Your task to perform on an android device: Go to Android settings Image 0: 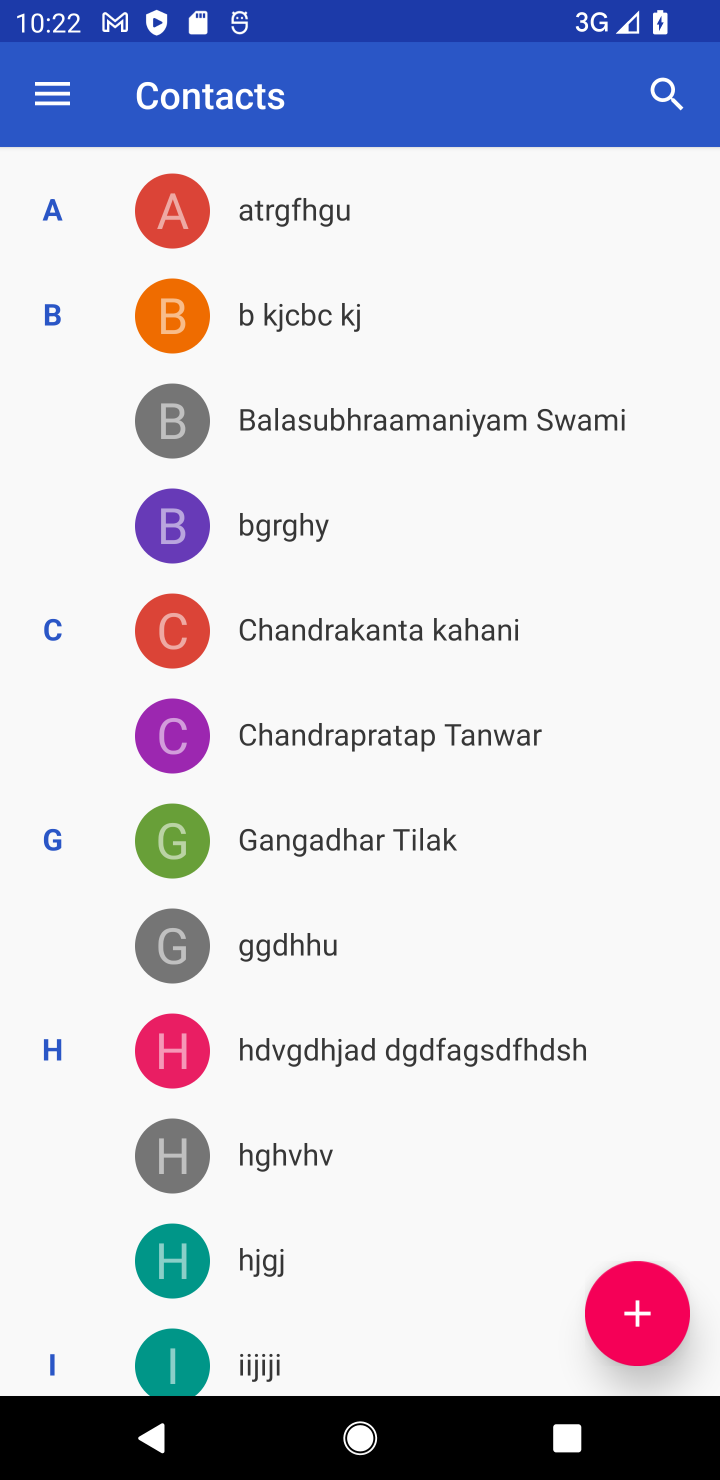
Step 0: press home button
Your task to perform on an android device: Go to Android settings Image 1: 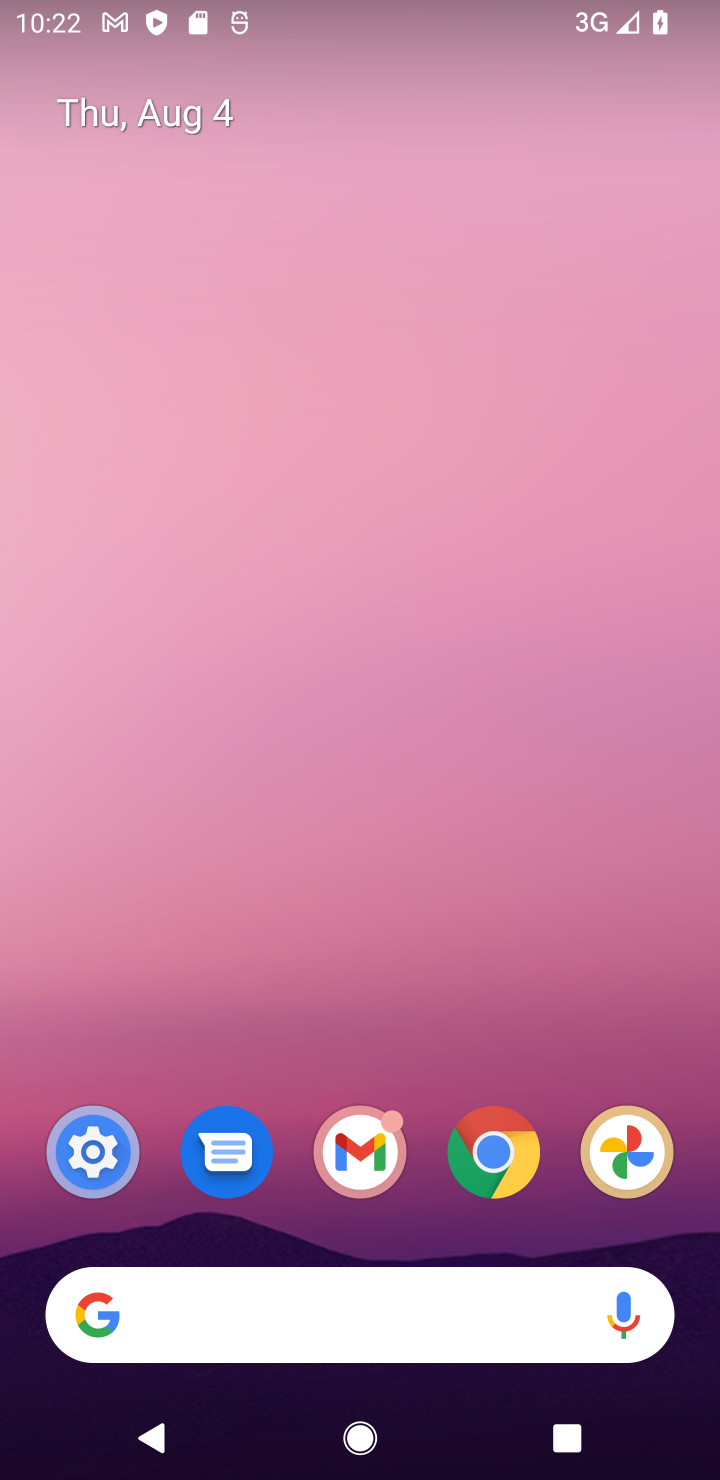
Step 1: drag from (310, 1156) to (305, 158)
Your task to perform on an android device: Go to Android settings Image 2: 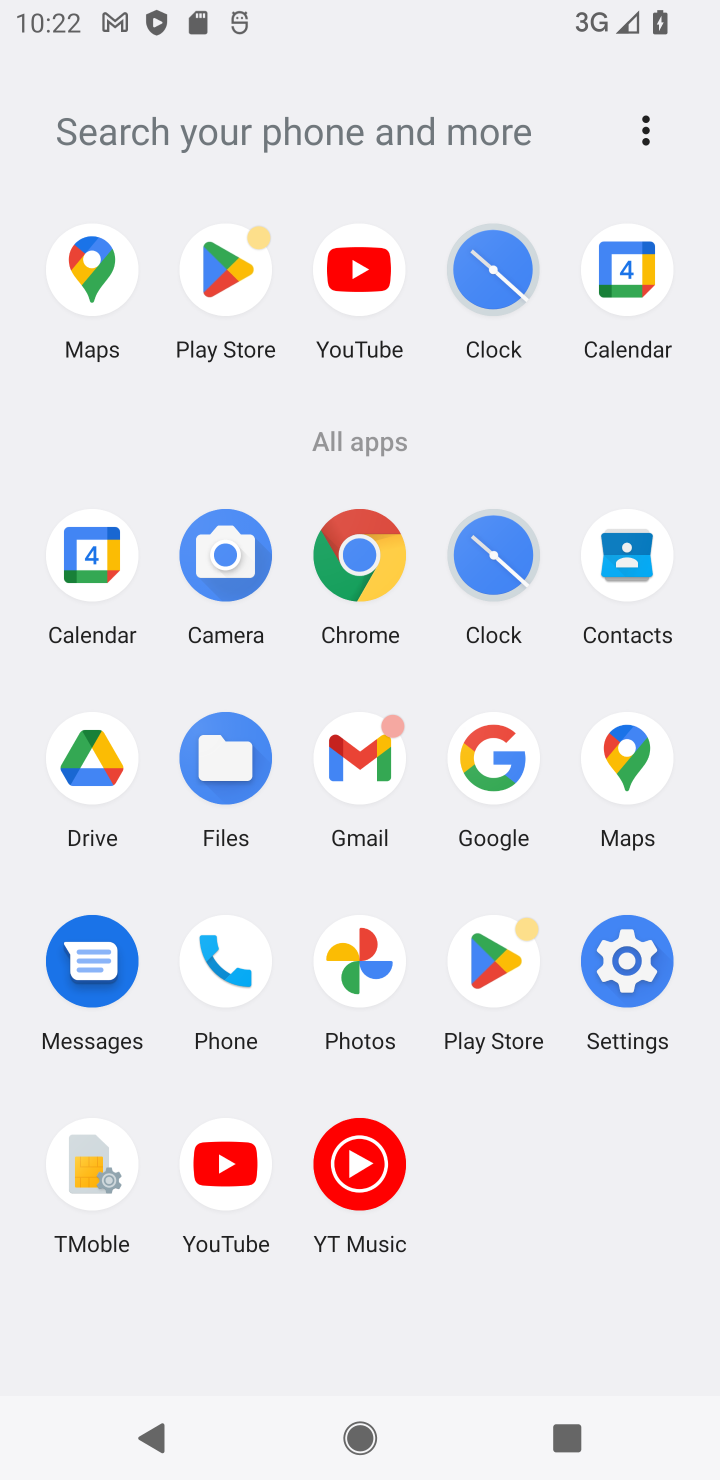
Step 2: click (622, 980)
Your task to perform on an android device: Go to Android settings Image 3: 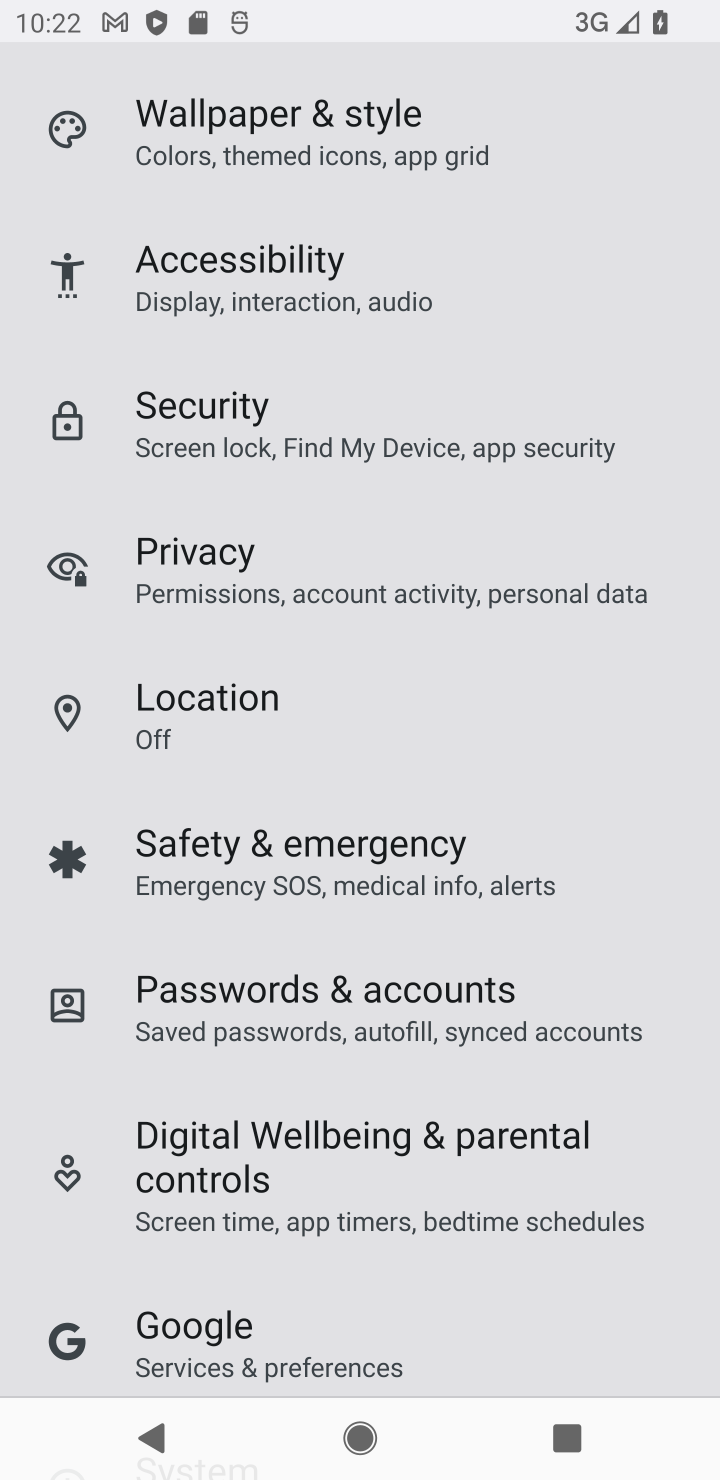
Step 3: drag from (263, 1187) to (302, 699)
Your task to perform on an android device: Go to Android settings Image 4: 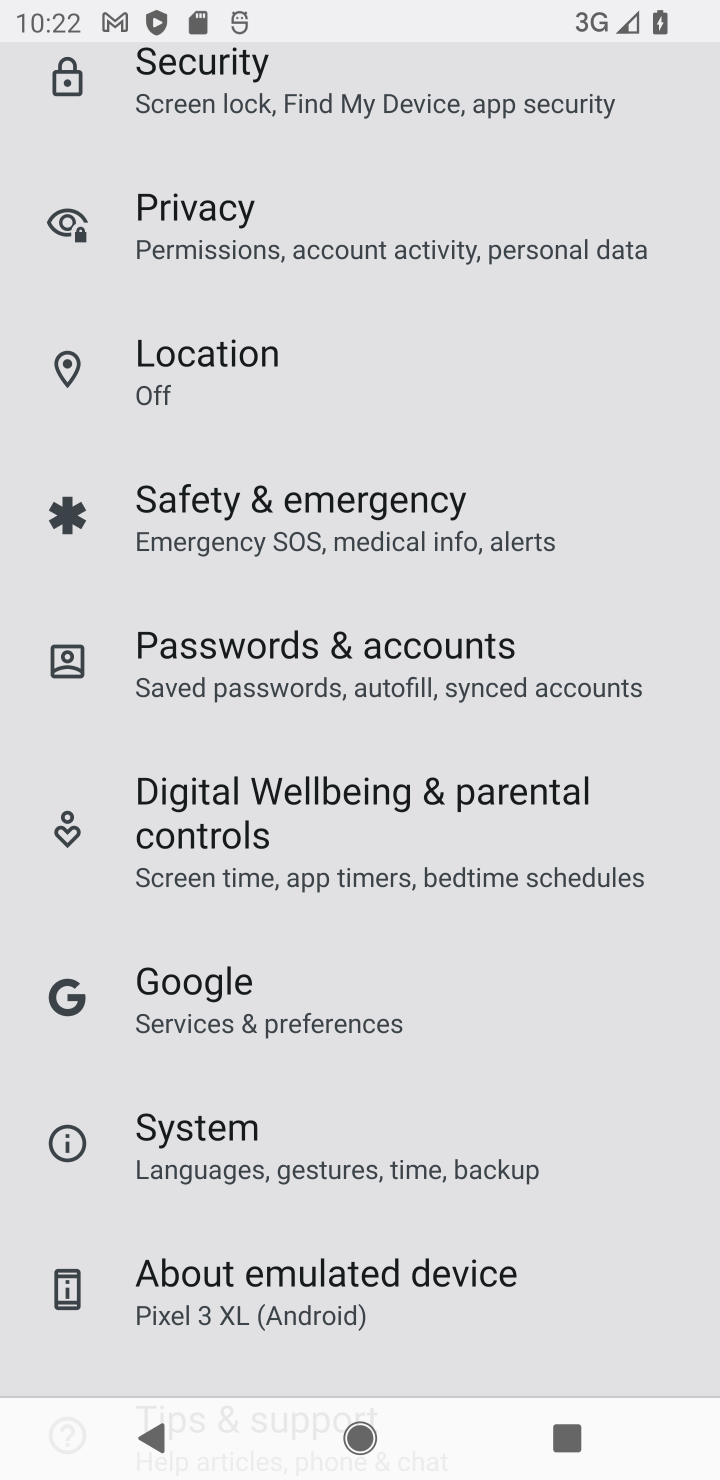
Step 4: click (293, 1283)
Your task to perform on an android device: Go to Android settings Image 5: 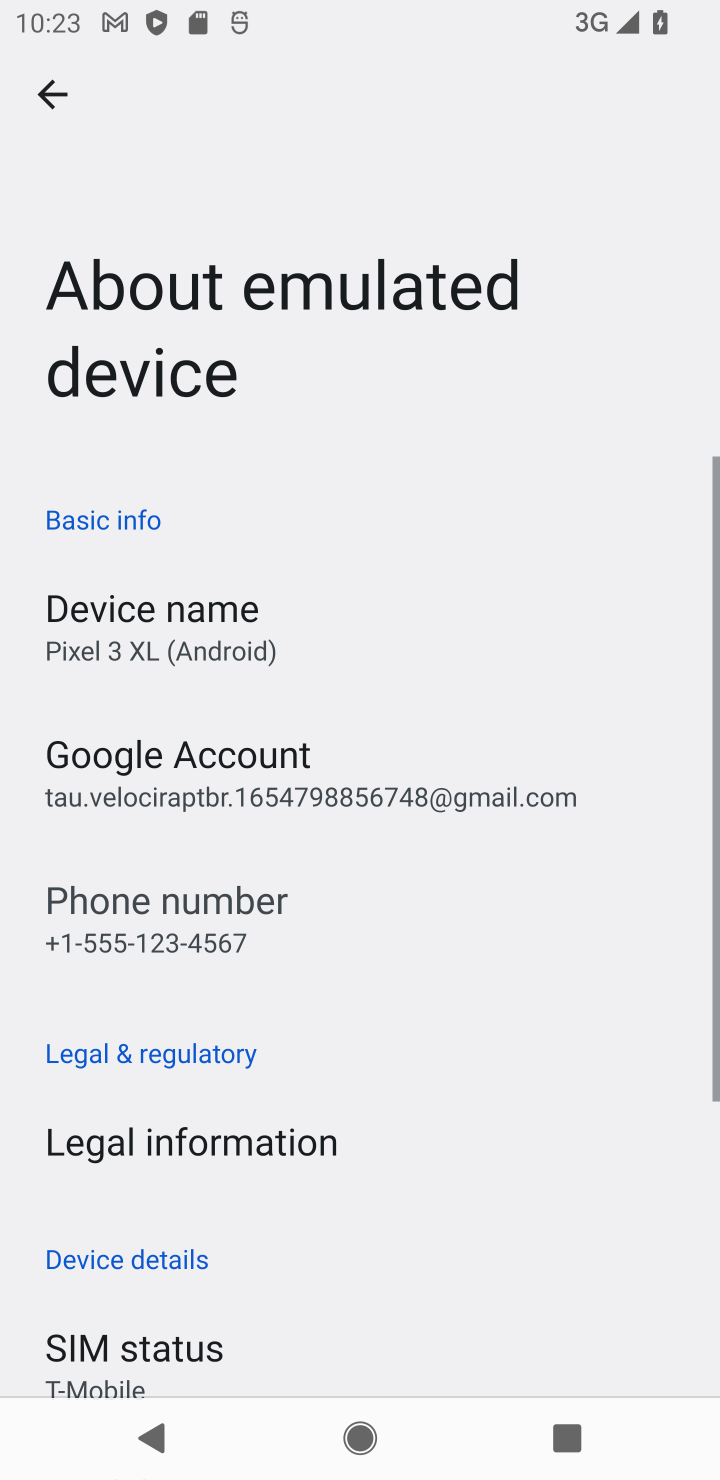
Step 5: drag from (249, 1321) to (280, 1006)
Your task to perform on an android device: Go to Android settings Image 6: 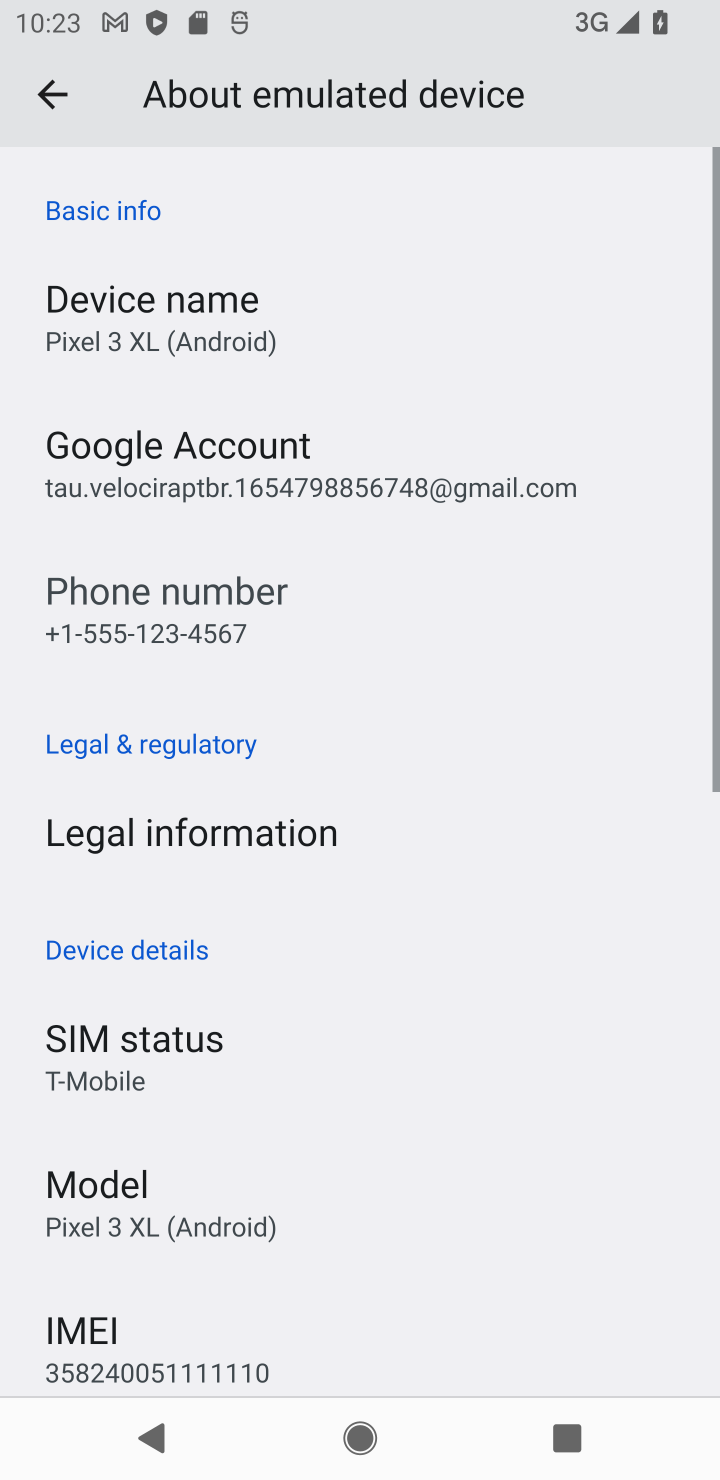
Step 6: drag from (279, 1249) to (326, 765)
Your task to perform on an android device: Go to Android settings Image 7: 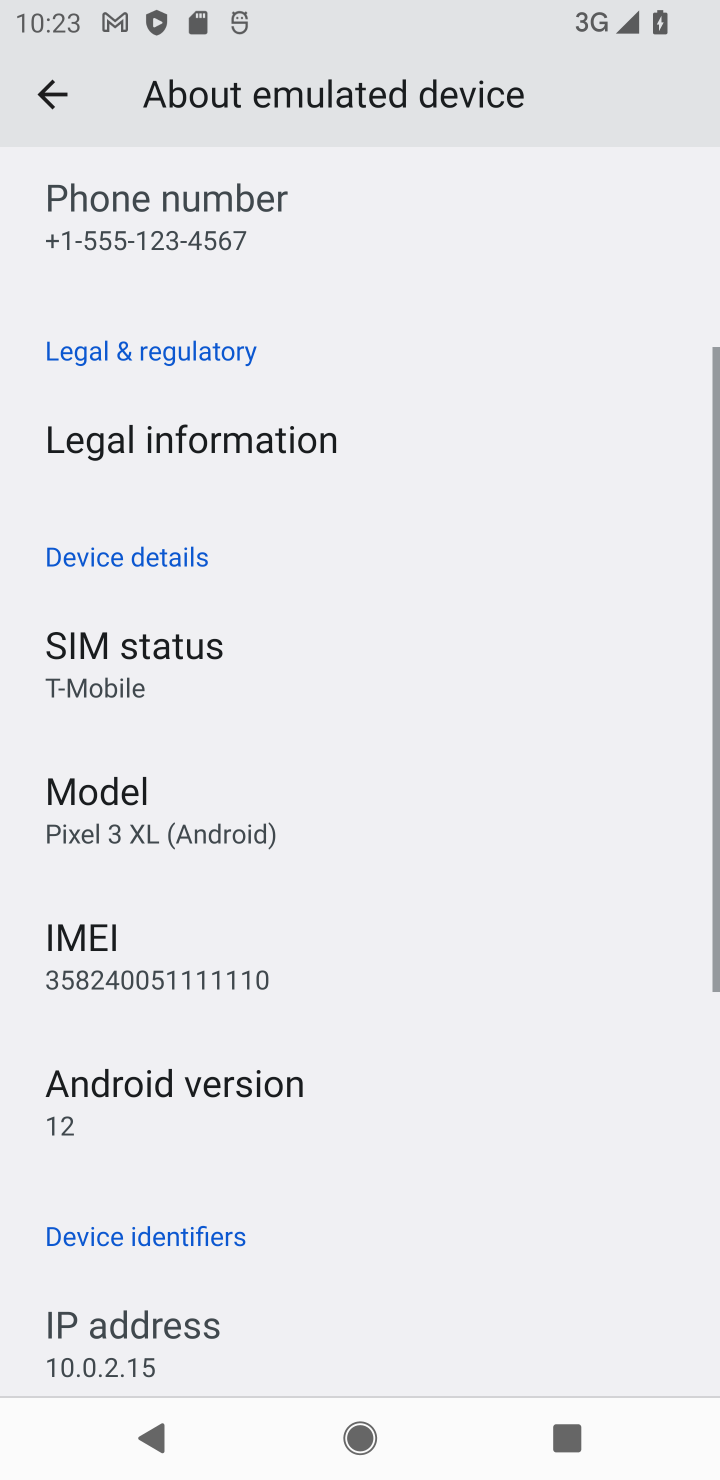
Step 7: click (213, 1141)
Your task to perform on an android device: Go to Android settings Image 8: 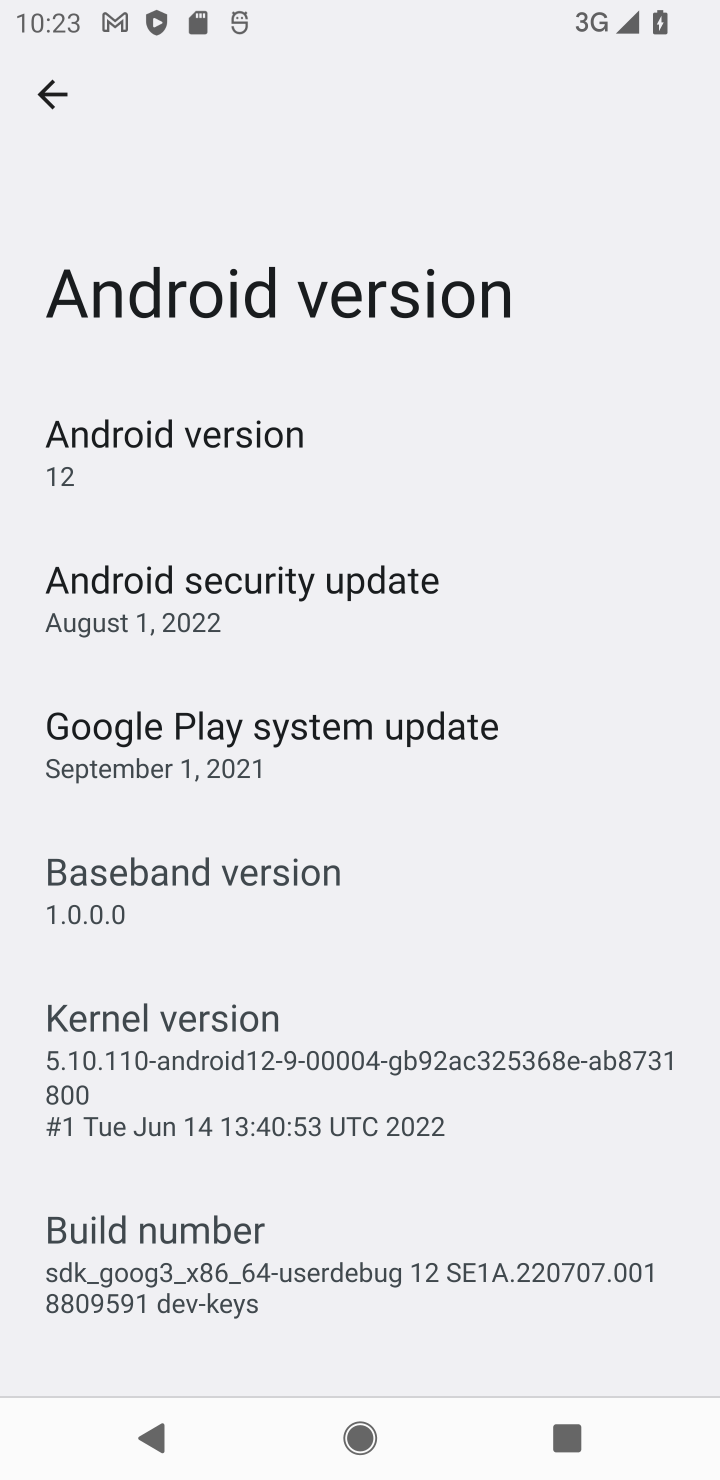
Step 8: task complete